Your task to perform on an android device: Open my contact list Image 0: 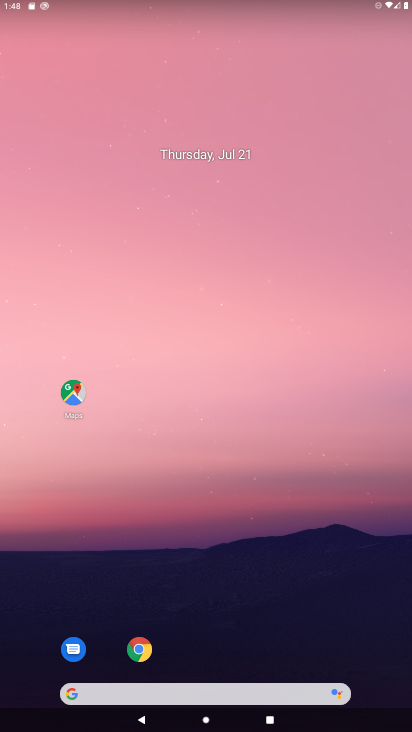
Step 0: drag from (312, 584) to (276, 1)
Your task to perform on an android device: Open my contact list Image 1: 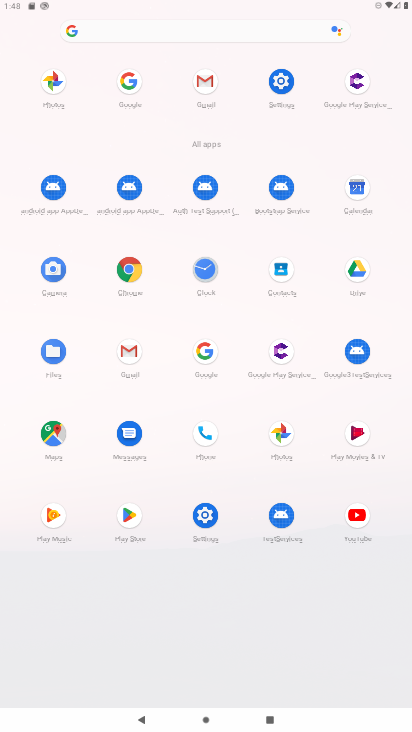
Step 1: click (194, 440)
Your task to perform on an android device: Open my contact list Image 2: 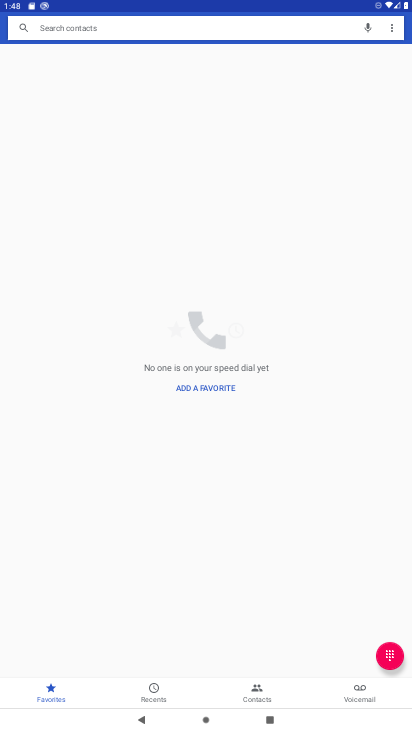
Step 2: click (249, 694)
Your task to perform on an android device: Open my contact list Image 3: 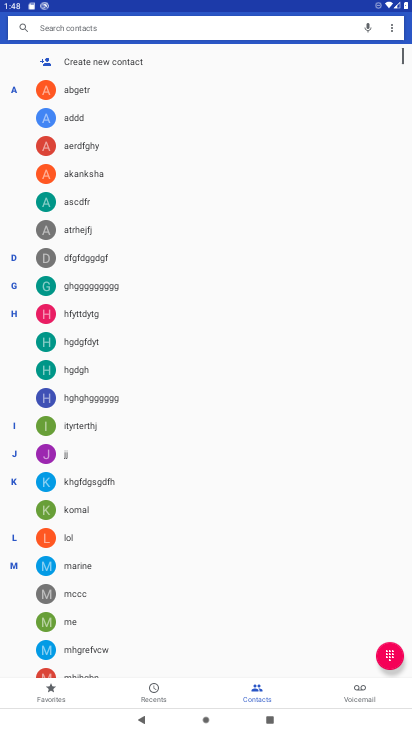
Step 3: task complete